Your task to perform on an android device: check google app version Image 0: 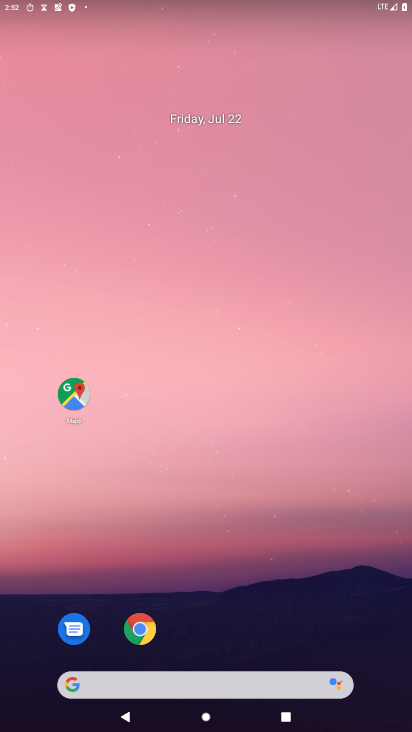
Step 0: drag from (219, 696) to (352, 11)
Your task to perform on an android device: check google app version Image 1: 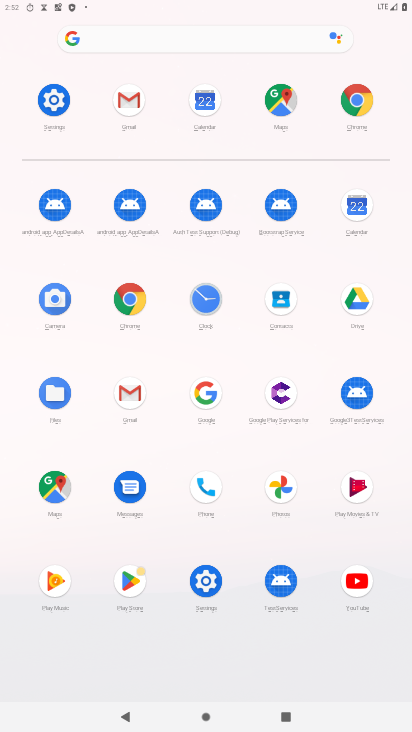
Step 1: click (218, 397)
Your task to perform on an android device: check google app version Image 2: 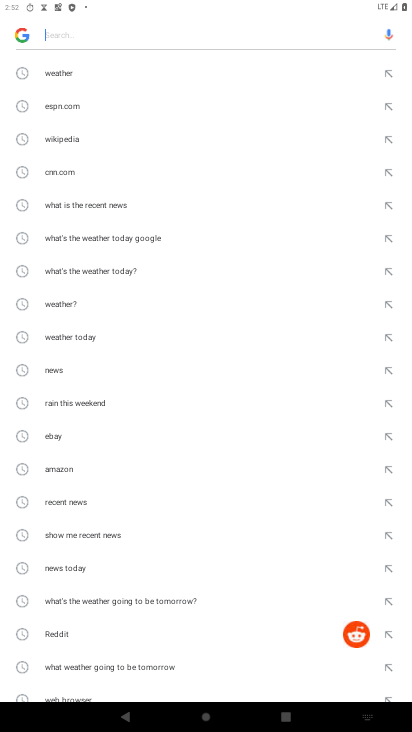
Step 2: press back button
Your task to perform on an android device: check google app version Image 3: 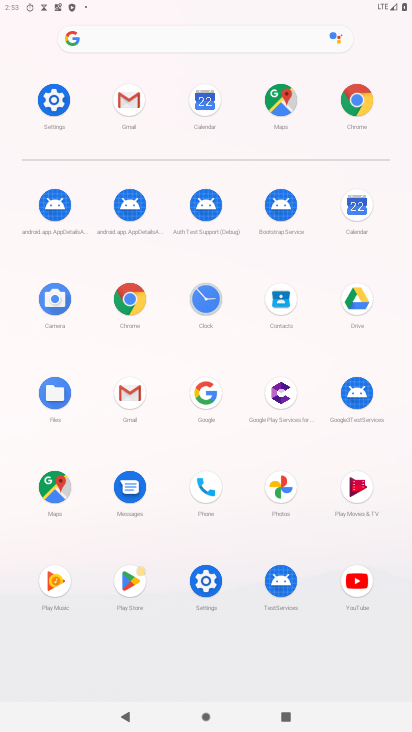
Step 3: click (211, 392)
Your task to perform on an android device: check google app version Image 4: 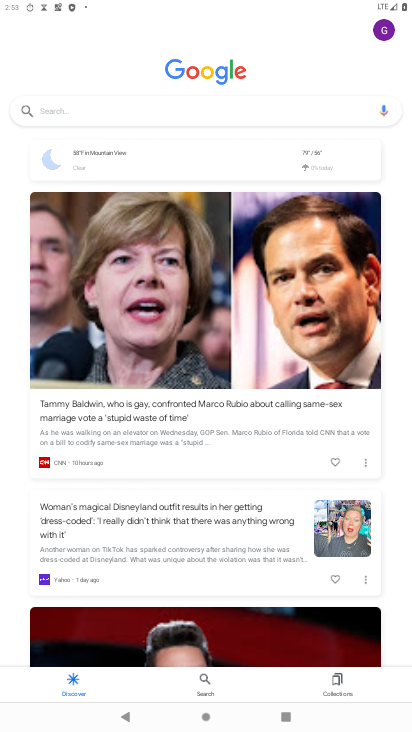
Step 4: click (384, 31)
Your task to perform on an android device: check google app version Image 5: 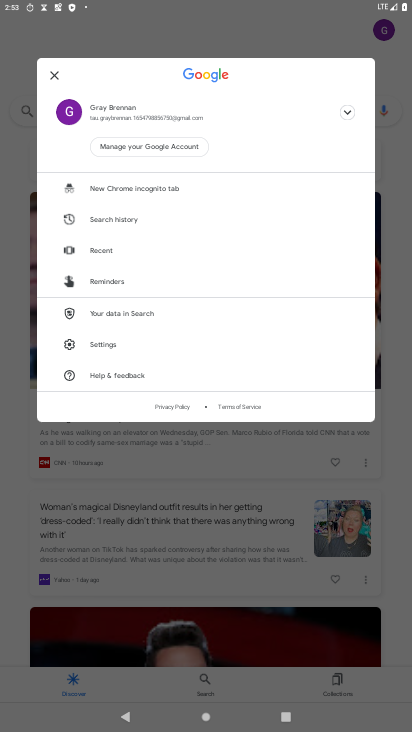
Step 5: click (149, 381)
Your task to perform on an android device: check google app version Image 6: 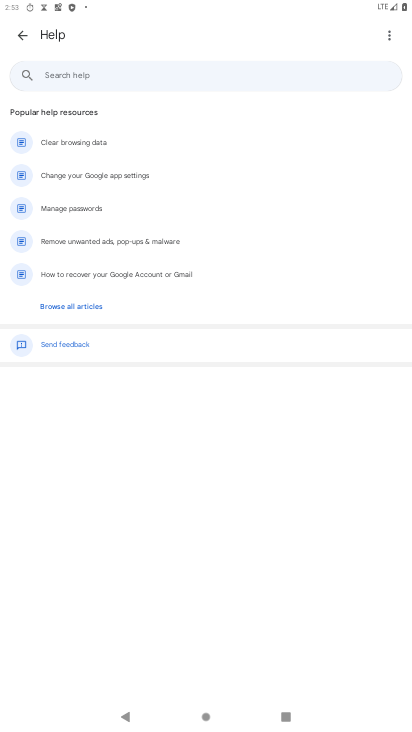
Step 6: click (385, 37)
Your task to perform on an android device: check google app version Image 7: 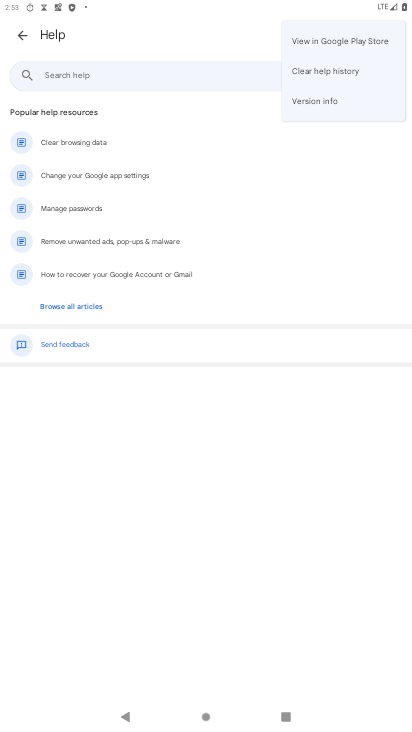
Step 7: click (322, 104)
Your task to perform on an android device: check google app version Image 8: 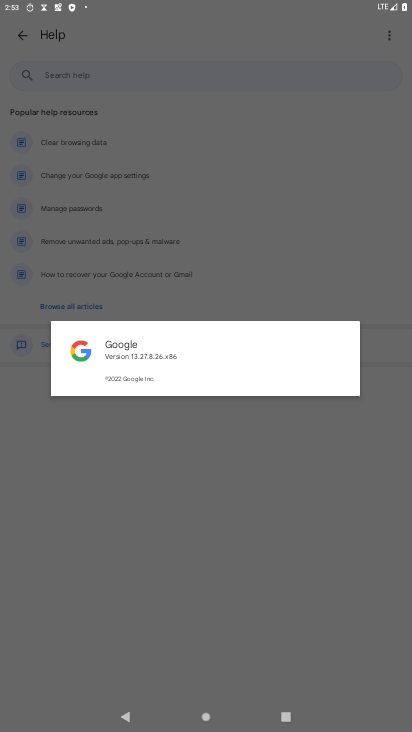
Step 8: task complete